Your task to perform on an android device: toggle javascript in the chrome app Image 0: 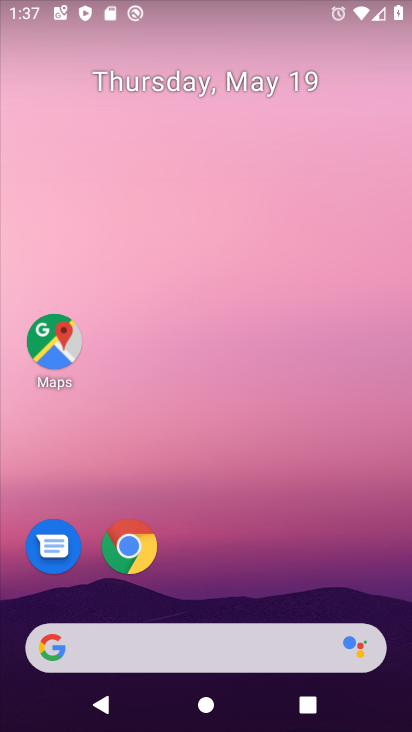
Step 0: click (121, 537)
Your task to perform on an android device: toggle javascript in the chrome app Image 1: 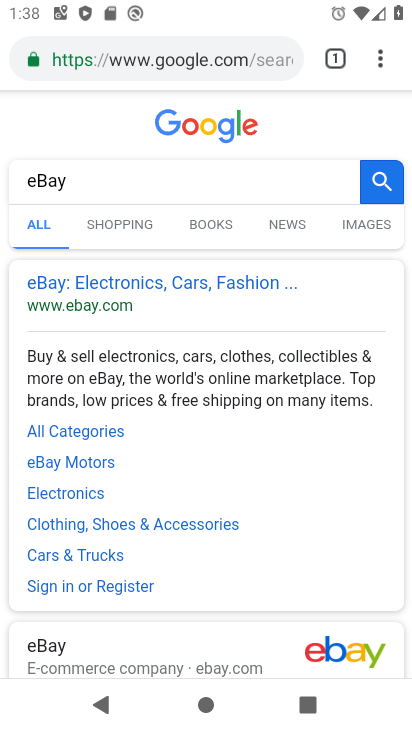
Step 1: click (383, 60)
Your task to perform on an android device: toggle javascript in the chrome app Image 2: 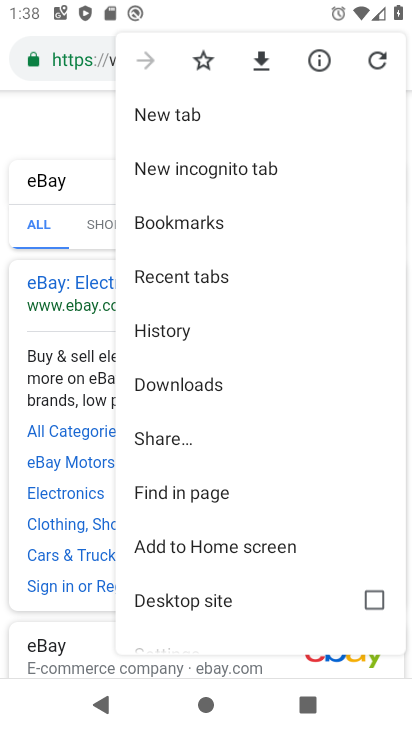
Step 2: drag from (204, 522) to (219, 275)
Your task to perform on an android device: toggle javascript in the chrome app Image 3: 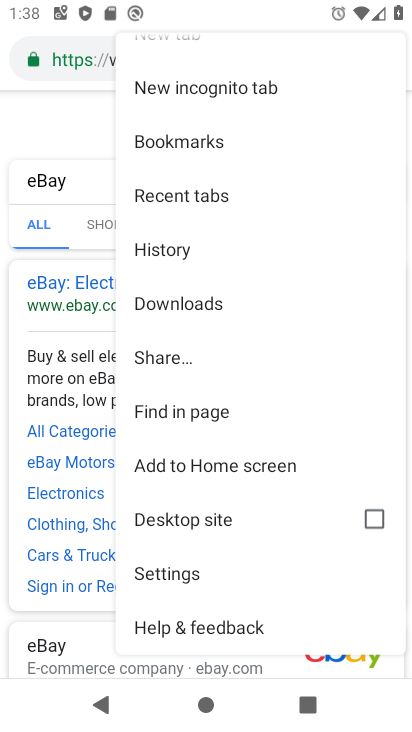
Step 3: click (181, 576)
Your task to perform on an android device: toggle javascript in the chrome app Image 4: 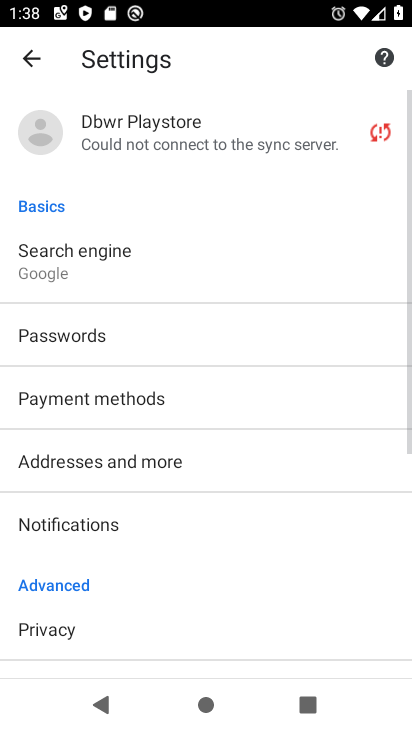
Step 4: drag from (148, 540) to (155, 235)
Your task to perform on an android device: toggle javascript in the chrome app Image 5: 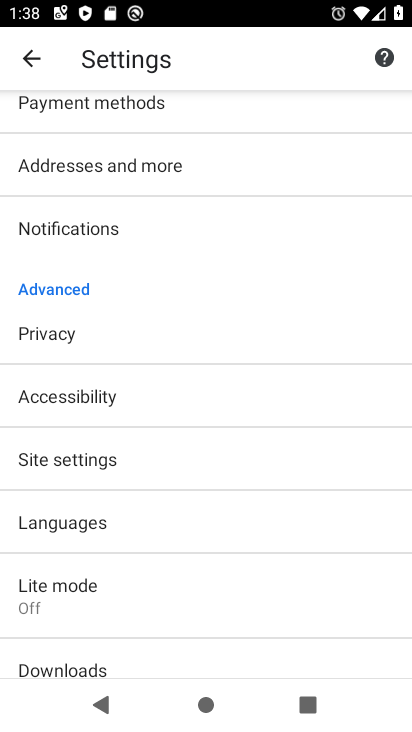
Step 5: drag from (100, 579) to (146, 240)
Your task to perform on an android device: toggle javascript in the chrome app Image 6: 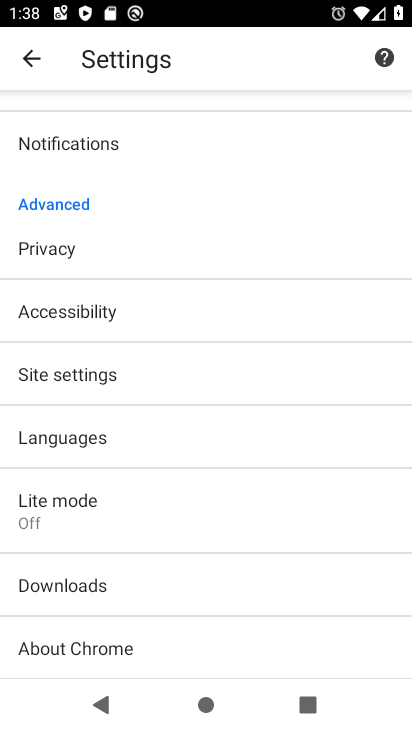
Step 6: drag from (112, 535) to (142, 318)
Your task to perform on an android device: toggle javascript in the chrome app Image 7: 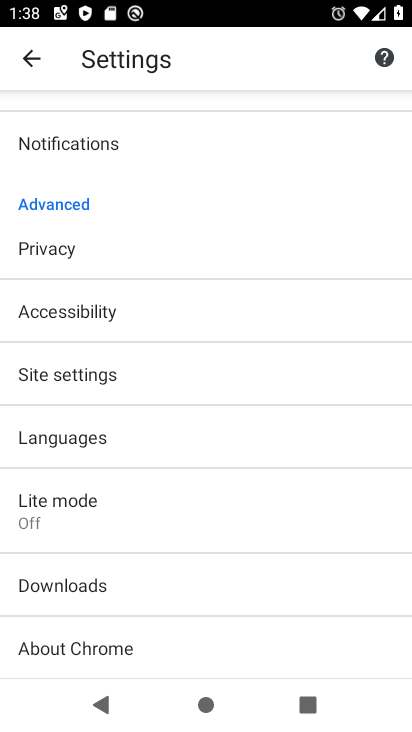
Step 7: drag from (112, 251) to (90, 491)
Your task to perform on an android device: toggle javascript in the chrome app Image 8: 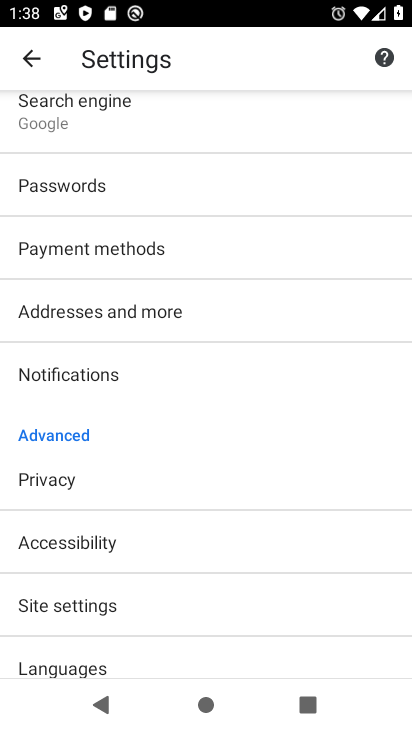
Step 8: click (77, 601)
Your task to perform on an android device: toggle javascript in the chrome app Image 9: 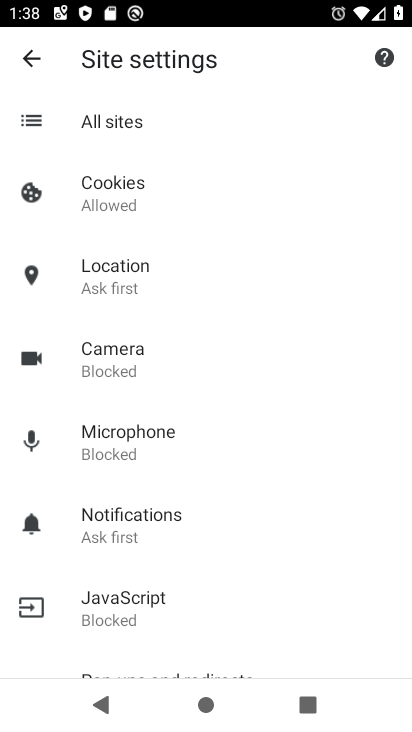
Step 9: click (111, 620)
Your task to perform on an android device: toggle javascript in the chrome app Image 10: 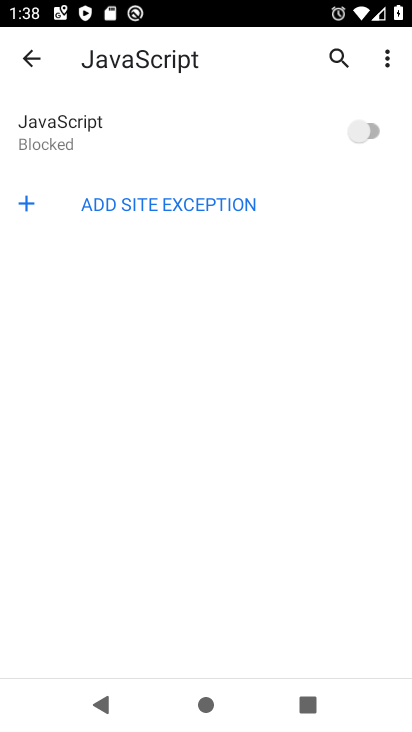
Step 10: click (369, 132)
Your task to perform on an android device: toggle javascript in the chrome app Image 11: 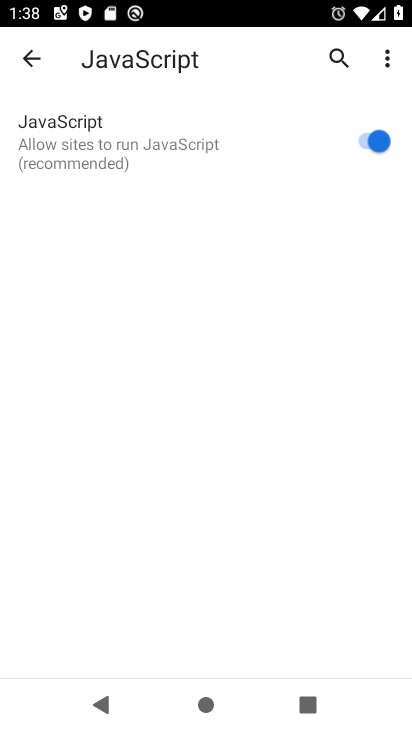
Step 11: task complete